Your task to perform on an android device: add a label to a message in the gmail app Image 0: 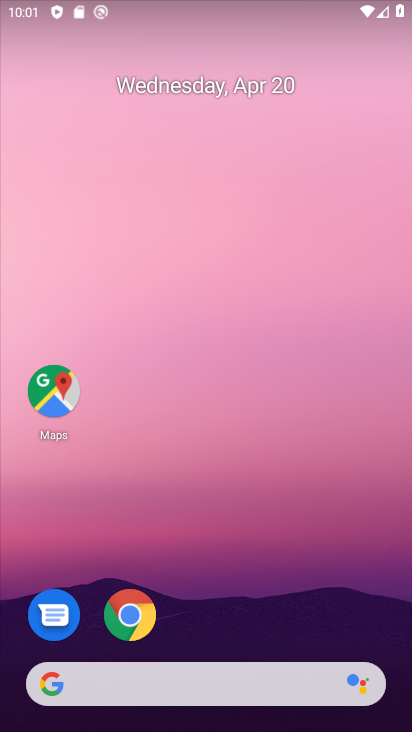
Step 0: drag from (235, 526) to (209, 300)
Your task to perform on an android device: add a label to a message in the gmail app Image 1: 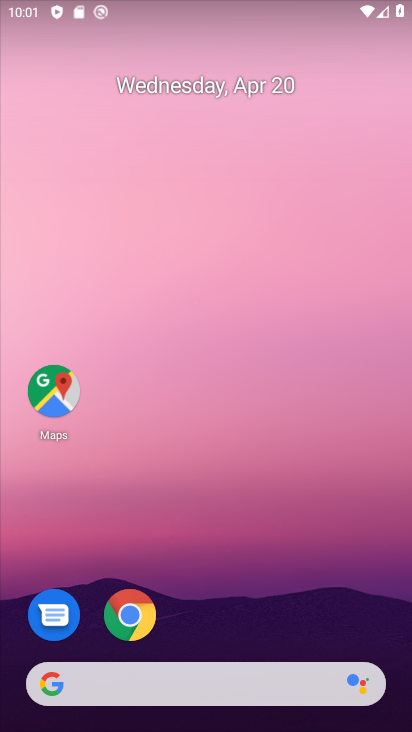
Step 1: drag from (246, 586) to (215, 99)
Your task to perform on an android device: add a label to a message in the gmail app Image 2: 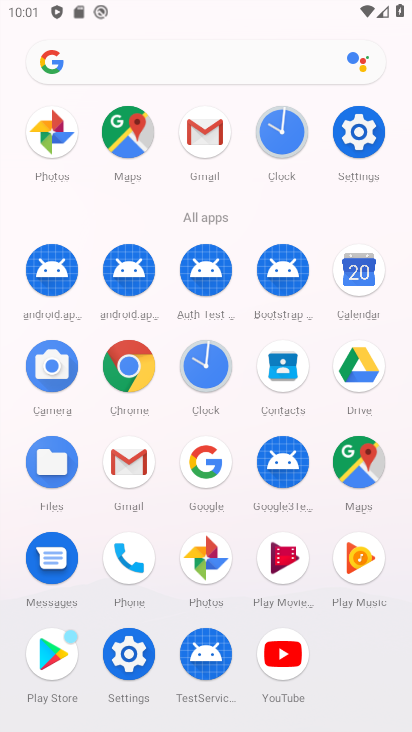
Step 2: click (207, 131)
Your task to perform on an android device: add a label to a message in the gmail app Image 3: 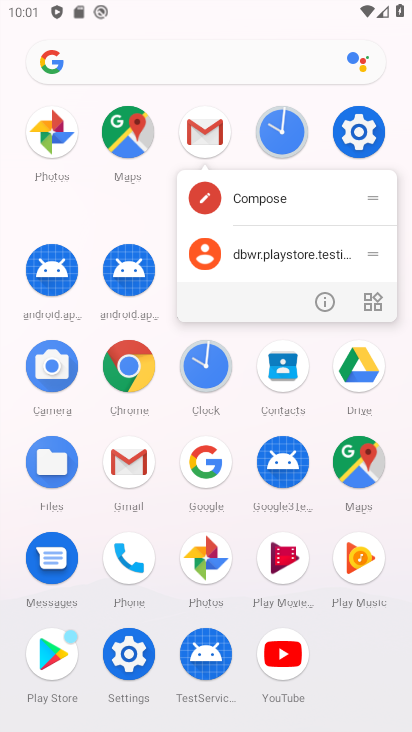
Step 3: click (207, 133)
Your task to perform on an android device: add a label to a message in the gmail app Image 4: 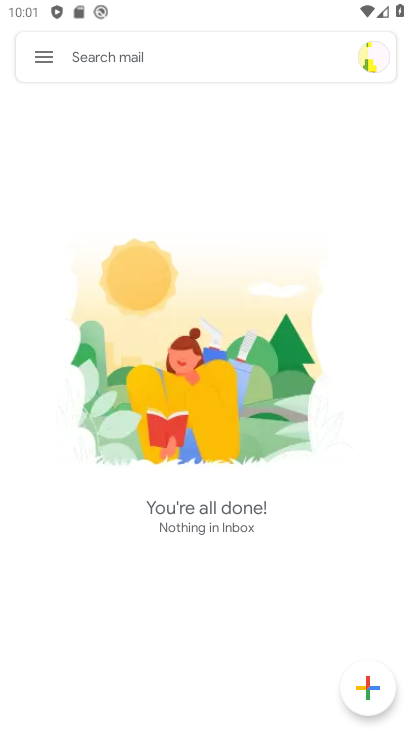
Step 4: click (41, 59)
Your task to perform on an android device: add a label to a message in the gmail app Image 5: 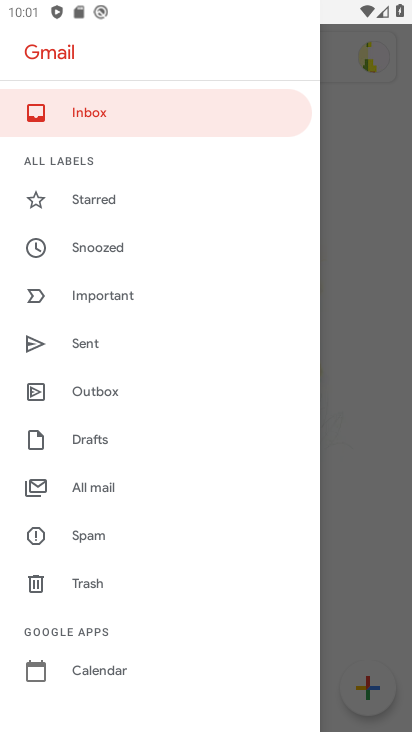
Step 5: click (370, 328)
Your task to perform on an android device: add a label to a message in the gmail app Image 6: 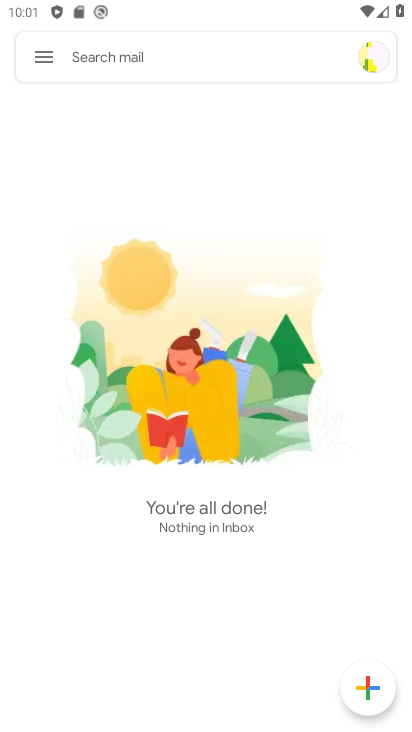
Step 6: task complete